Your task to perform on an android device: Search for vegetarian restaurants on Maps Image 0: 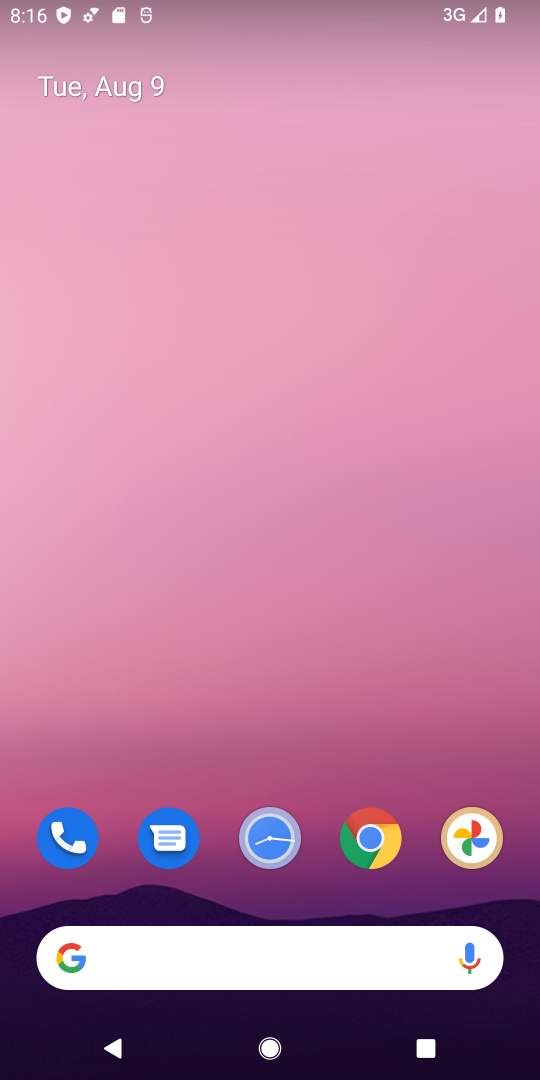
Step 0: drag from (248, 926) to (156, 225)
Your task to perform on an android device: Search for vegetarian restaurants on Maps Image 1: 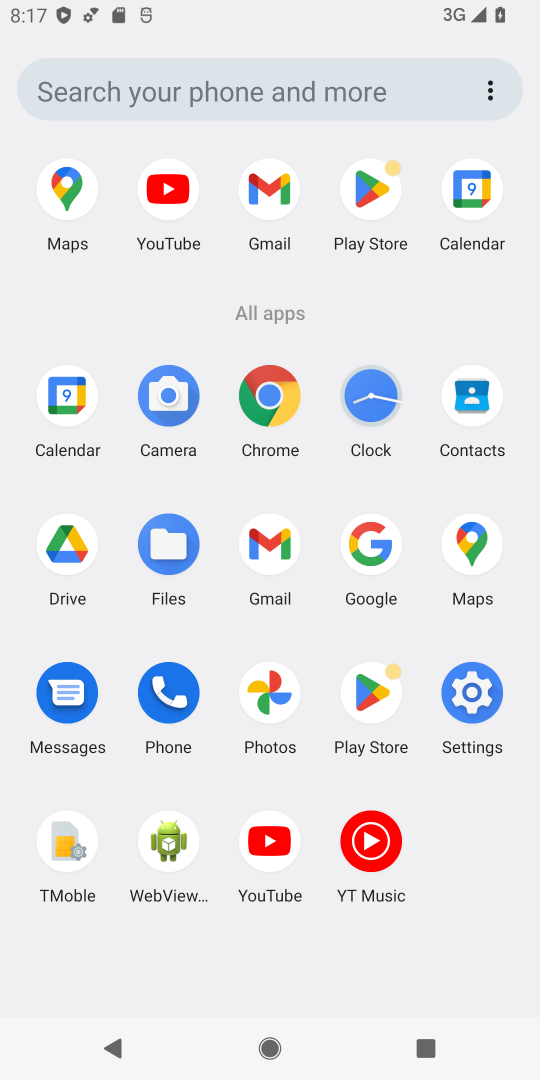
Step 1: click (470, 540)
Your task to perform on an android device: Search for vegetarian restaurants on Maps Image 2: 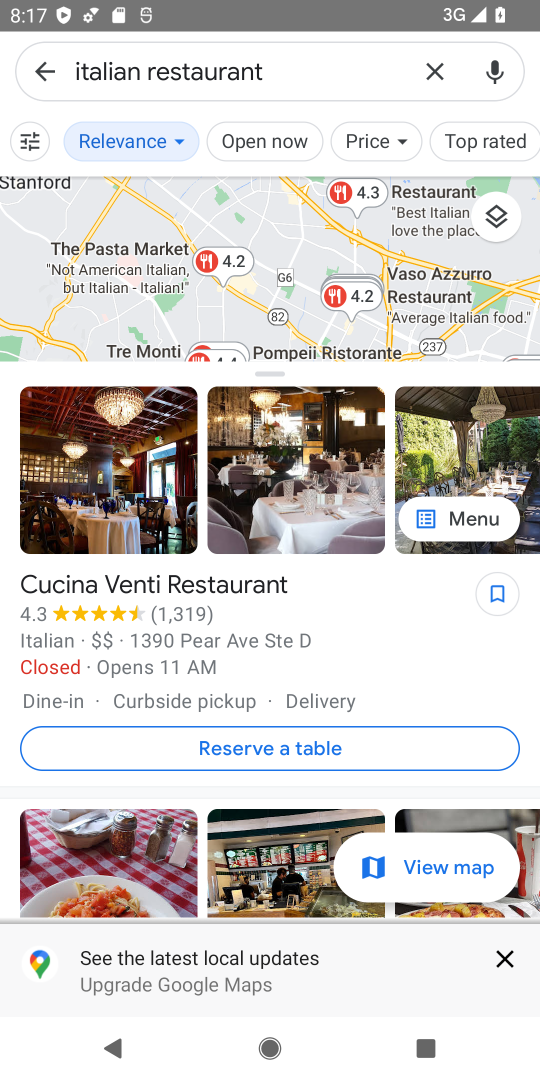
Step 2: click (423, 70)
Your task to perform on an android device: Search for vegetarian restaurants on Maps Image 3: 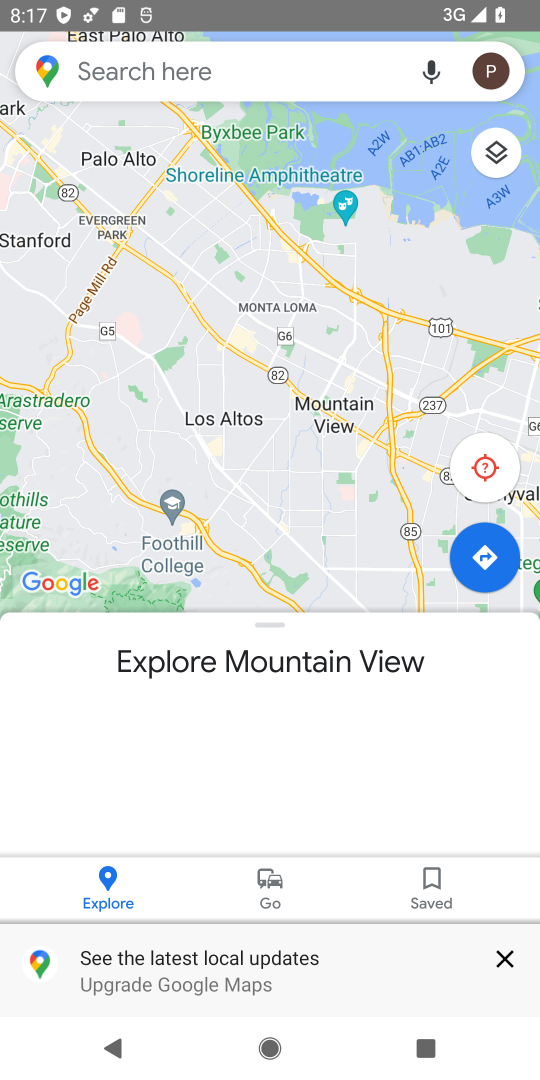
Step 3: click (354, 73)
Your task to perform on an android device: Search for vegetarian restaurants on Maps Image 4: 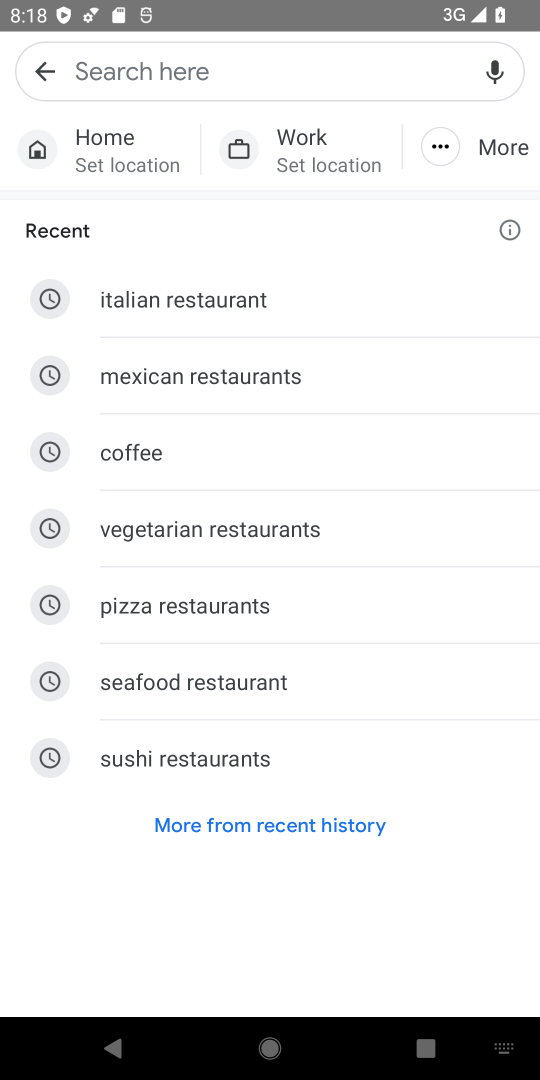
Step 4: click (345, 547)
Your task to perform on an android device: Search for vegetarian restaurants on Maps Image 5: 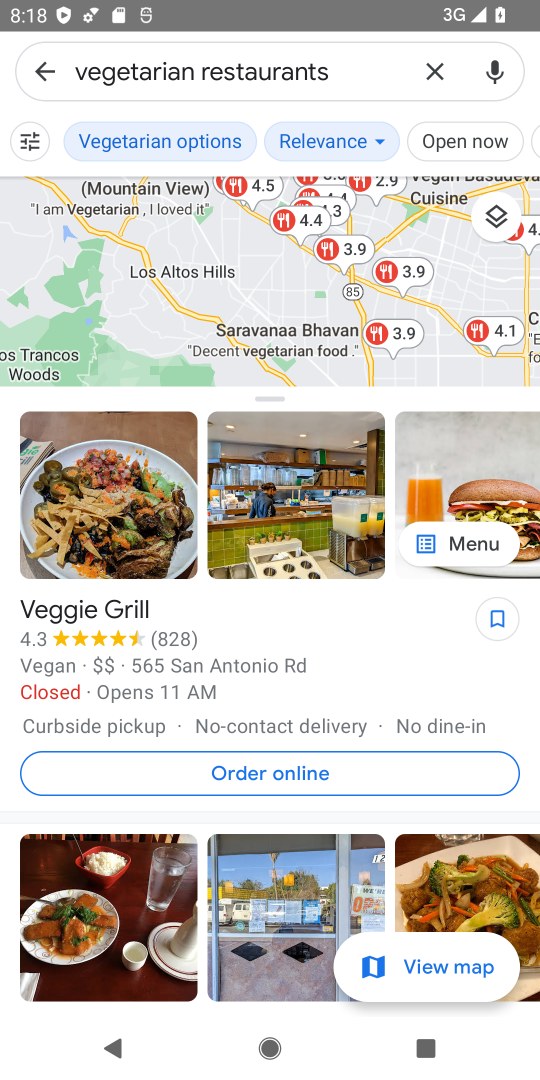
Step 5: task complete